Your task to perform on an android device: What's on my calendar tomorrow? Image 0: 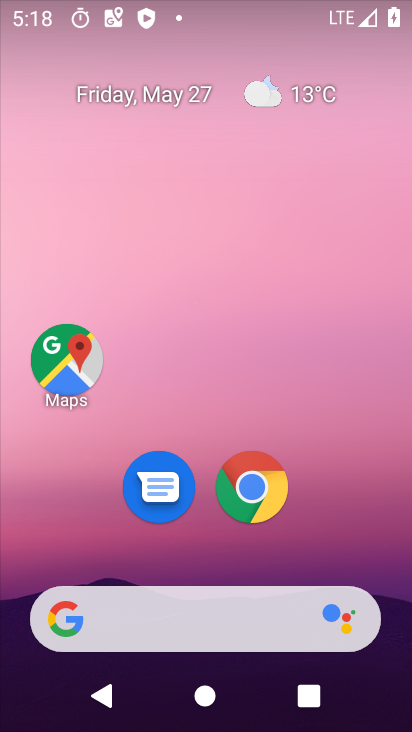
Step 0: drag from (359, 496) to (307, 147)
Your task to perform on an android device: What's on my calendar tomorrow? Image 1: 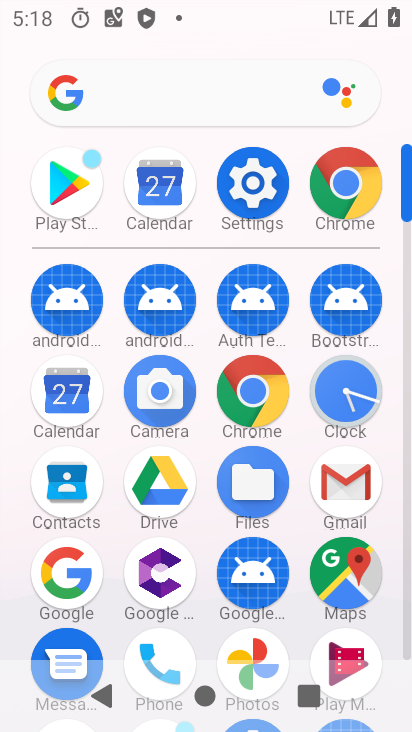
Step 1: click (160, 199)
Your task to perform on an android device: What's on my calendar tomorrow? Image 2: 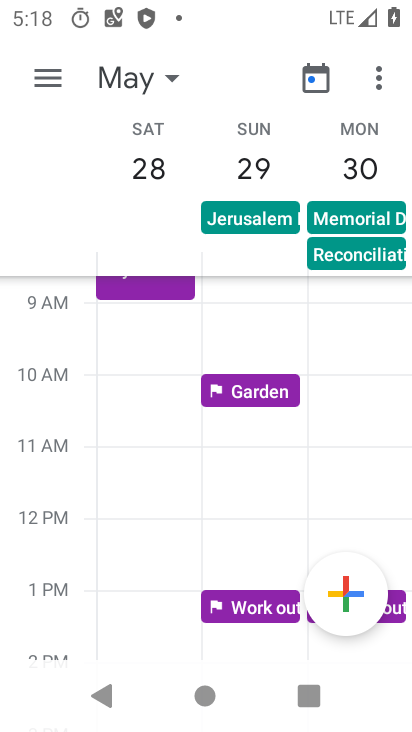
Step 2: task complete